Your task to perform on an android device: turn on location history Image 0: 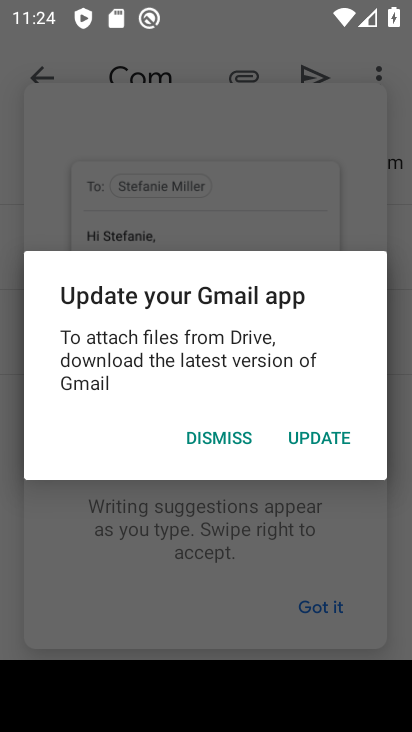
Step 0: press home button
Your task to perform on an android device: turn on location history Image 1: 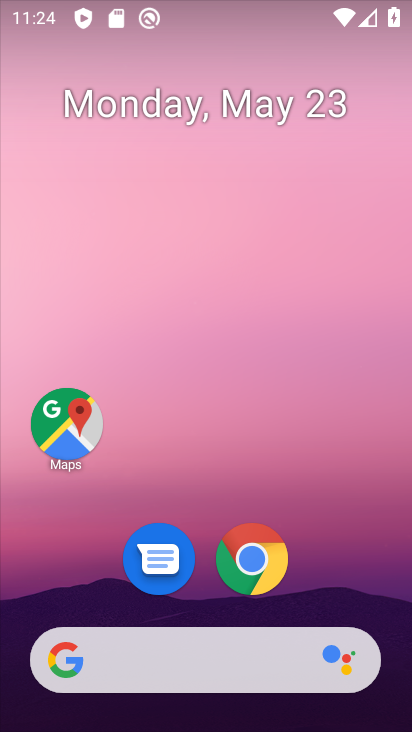
Step 1: drag from (401, 701) to (371, 39)
Your task to perform on an android device: turn on location history Image 2: 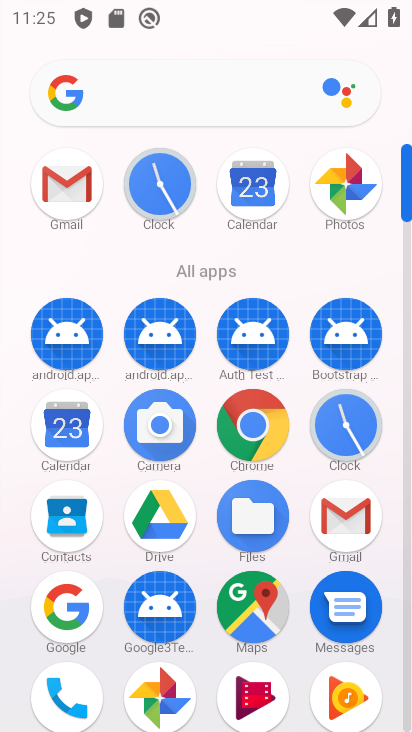
Step 2: drag from (409, 152) to (407, 46)
Your task to perform on an android device: turn on location history Image 3: 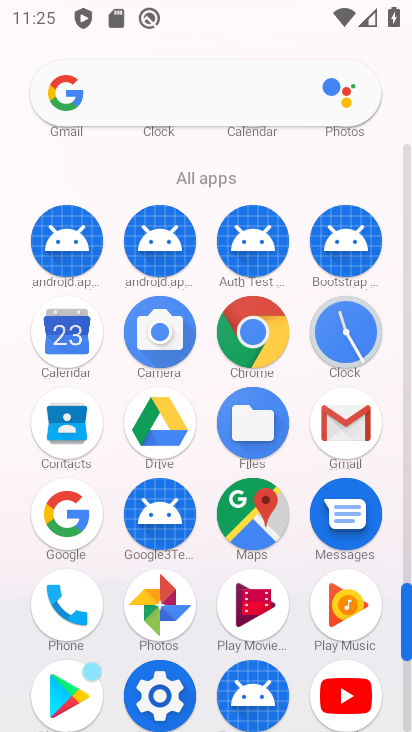
Step 3: click (168, 684)
Your task to perform on an android device: turn on location history Image 4: 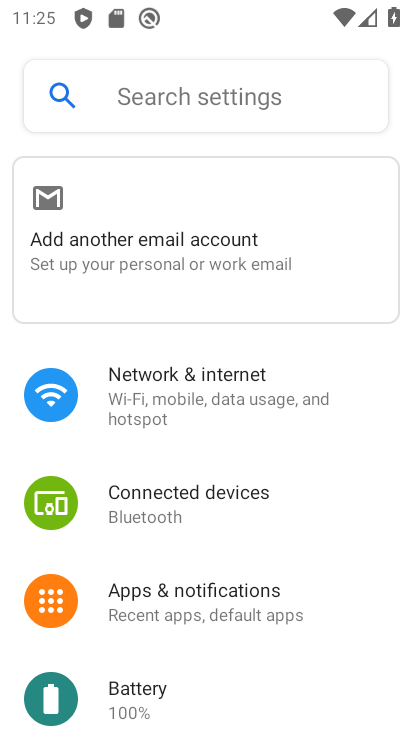
Step 4: drag from (335, 691) to (305, 277)
Your task to perform on an android device: turn on location history Image 5: 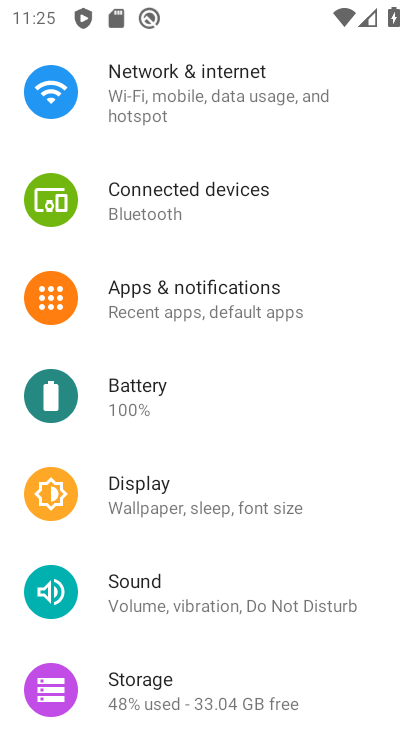
Step 5: drag from (364, 701) to (352, 333)
Your task to perform on an android device: turn on location history Image 6: 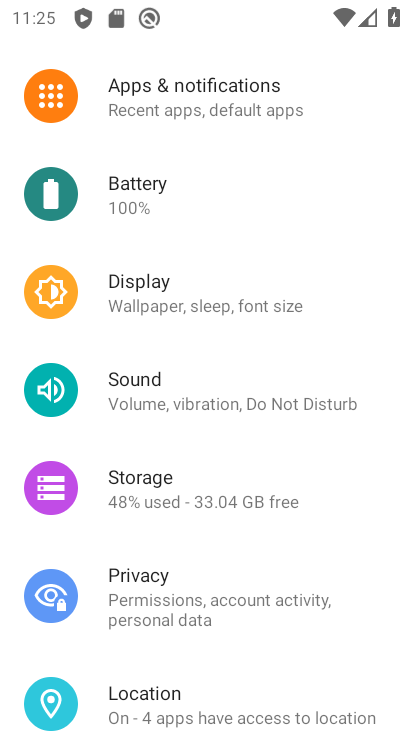
Step 6: drag from (367, 621) to (374, 242)
Your task to perform on an android device: turn on location history Image 7: 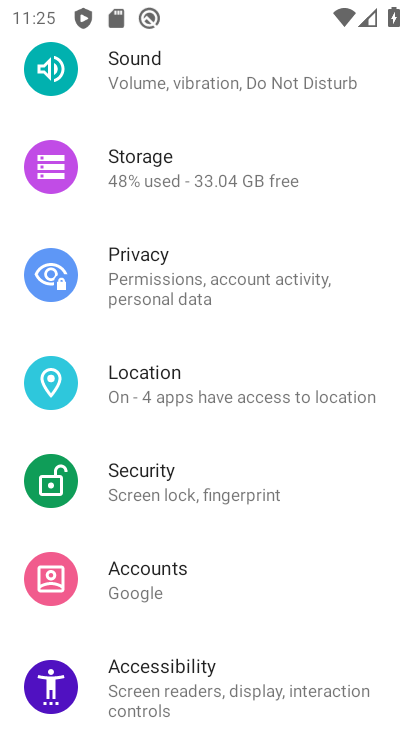
Step 7: click (146, 377)
Your task to perform on an android device: turn on location history Image 8: 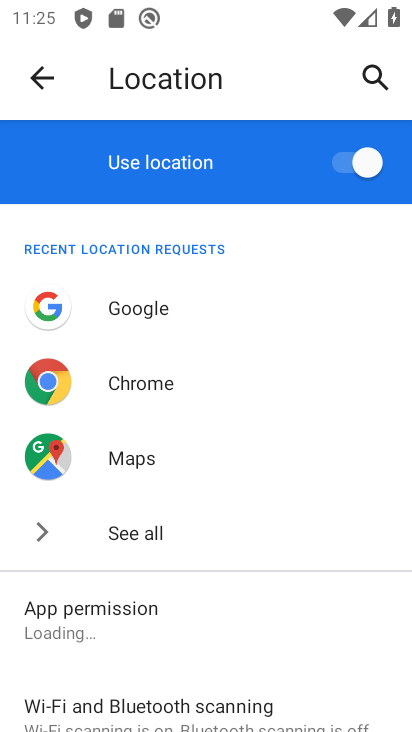
Step 8: drag from (334, 670) to (281, 442)
Your task to perform on an android device: turn on location history Image 9: 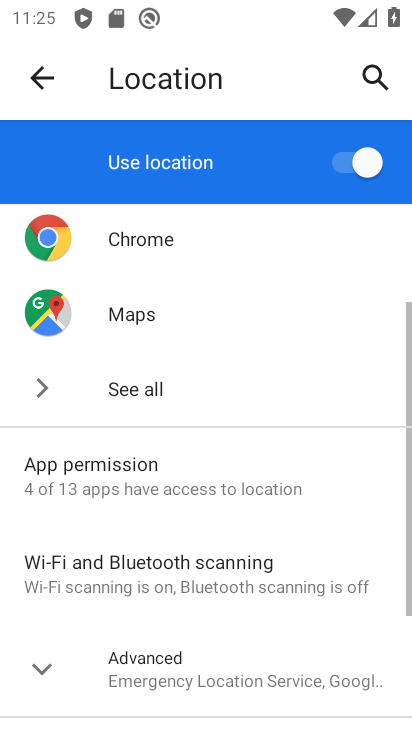
Step 9: drag from (335, 634) to (330, 394)
Your task to perform on an android device: turn on location history Image 10: 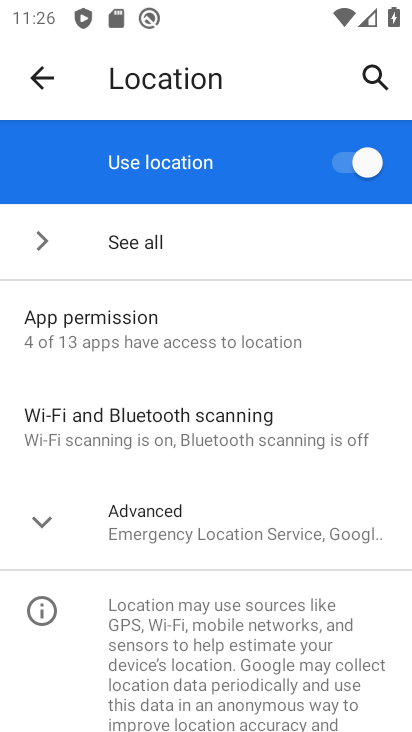
Step 10: click (35, 526)
Your task to perform on an android device: turn on location history Image 11: 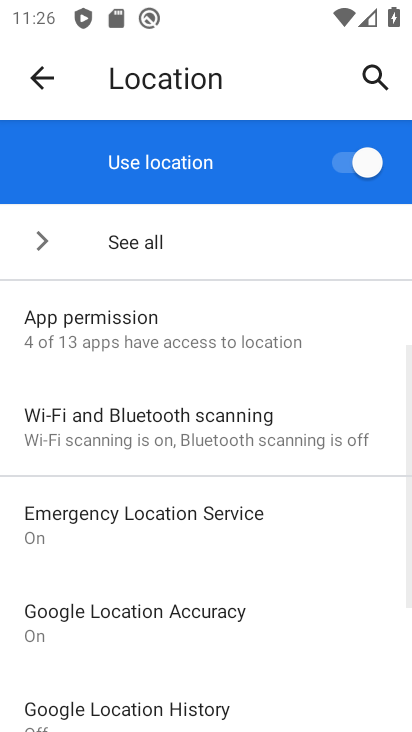
Step 11: drag from (339, 674) to (325, 276)
Your task to perform on an android device: turn on location history Image 12: 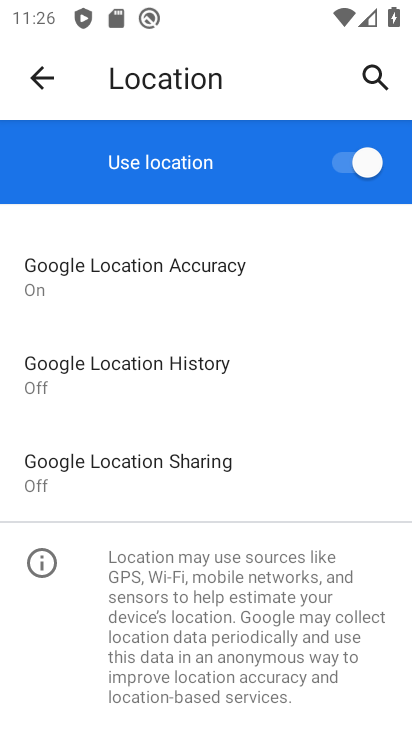
Step 12: click (91, 367)
Your task to perform on an android device: turn on location history Image 13: 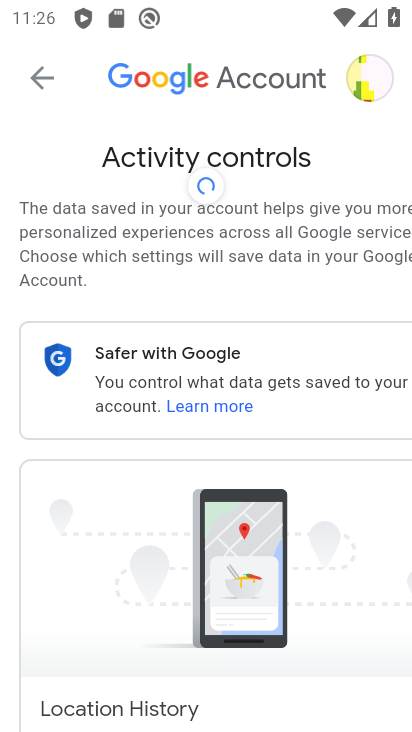
Step 13: drag from (328, 647) to (336, 215)
Your task to perform on an android device: turn on location history Image 14: 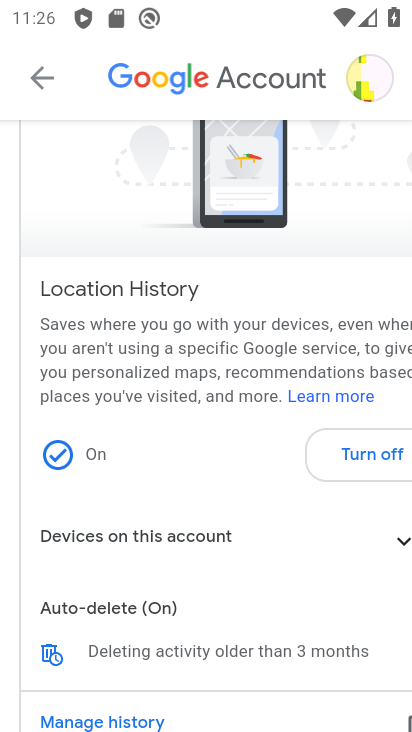
Step 14: click (373, 460)
Your task to perform on an android device: turn on location history Image 15: 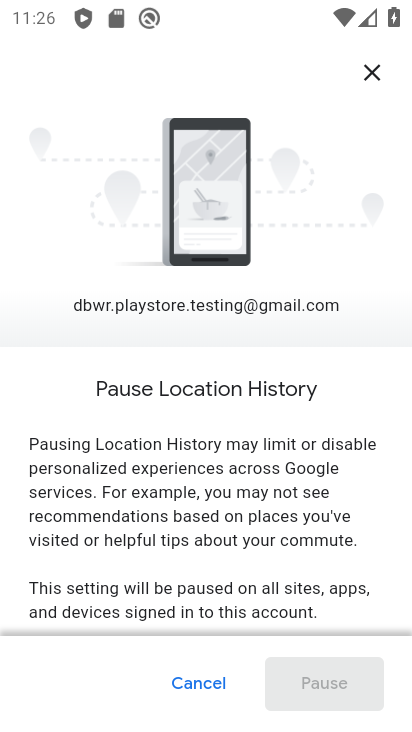
Step 15: drag from (300, 561) to (267, 371)
Your task to perform on an android device: turn on location history Image 16: 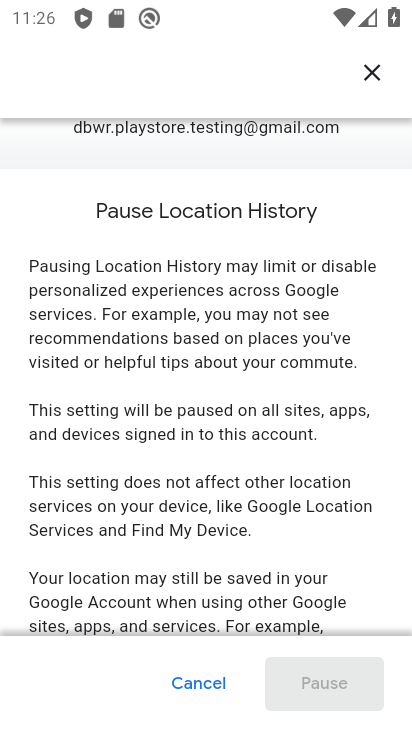
Step 16: drag from (311, 586) to (326, 363)
Your task to perform on an android device: turn on location history Image 17: 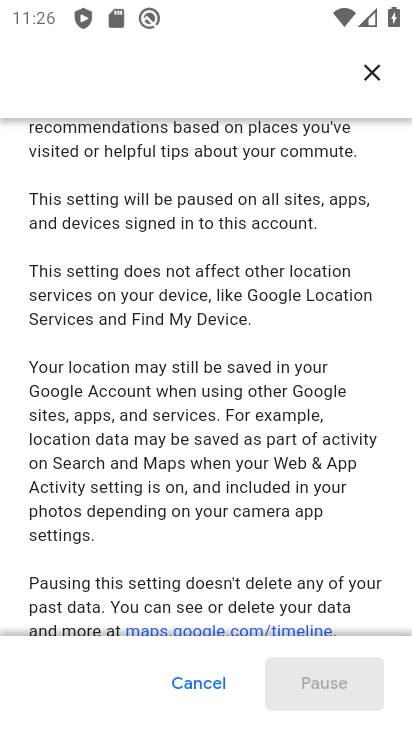
Step 17: drag from (316, 603) to (334, 380)
Your task to perform on an android device: turn on location history Image 18: 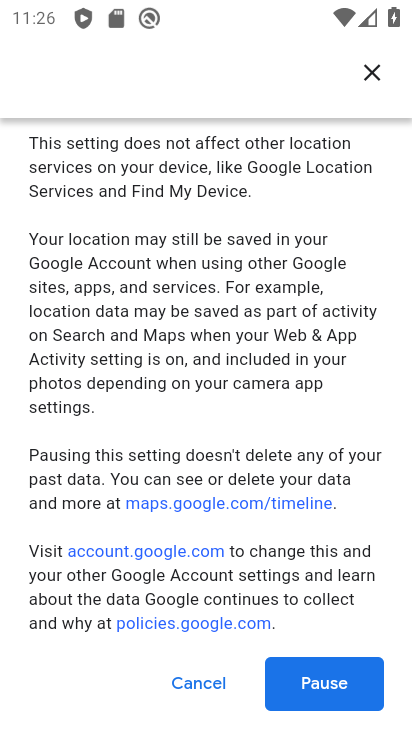
Step 18: click (301, 699)
Your task to perform on an android device: turn on location history Image 19: 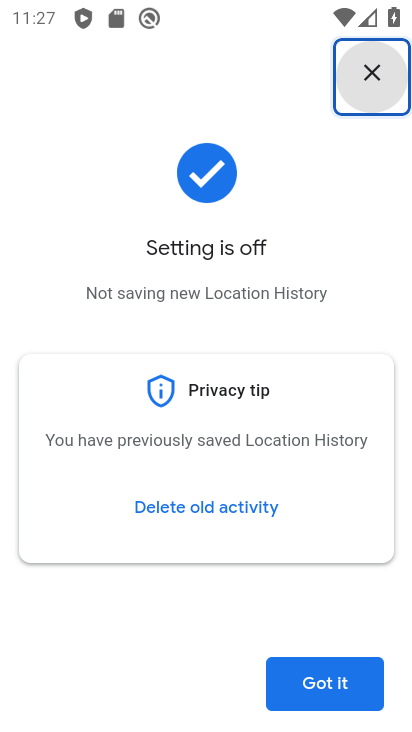
Step 19: click (306, 689)
Your task to perform on an android device: turn on location history Image 20: 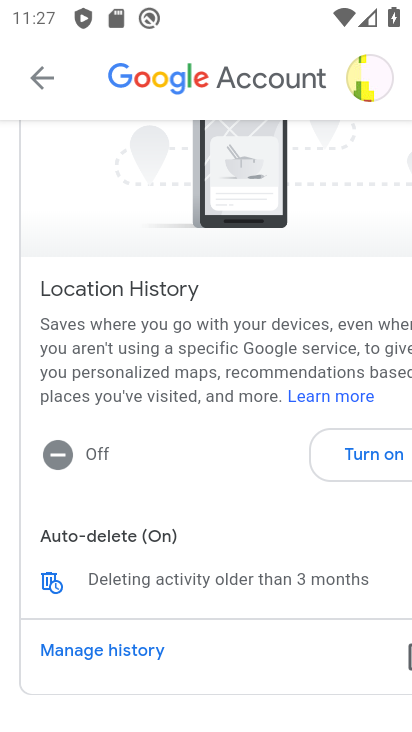
Step 20: task complete